Your task to perform on an android device: toggle pop-ups in chrome Image 0: 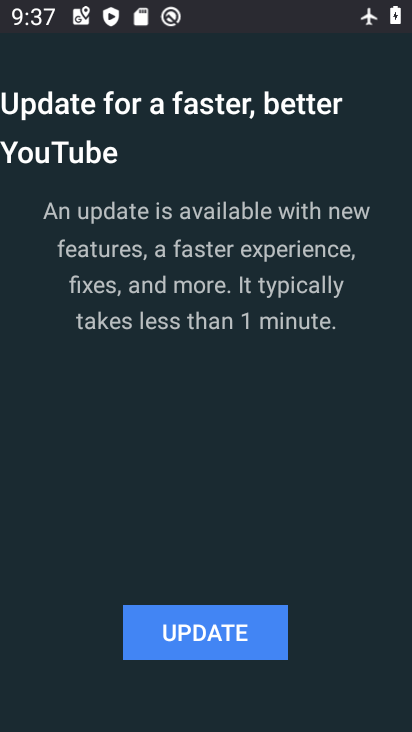
Step 0: press home button
Your task to perform on an android device: toggle pop-ups in chrome Image 1: 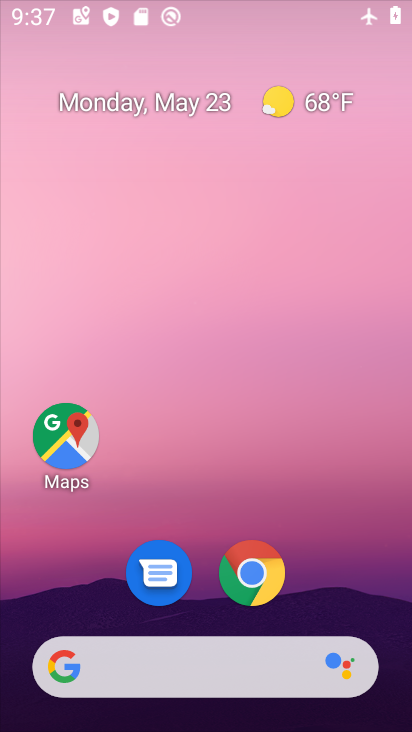
Step 1: drag from (228, 651) to (295, 115)
Your task to perform on an android device: toggle pop-ups in chrome Image 2: 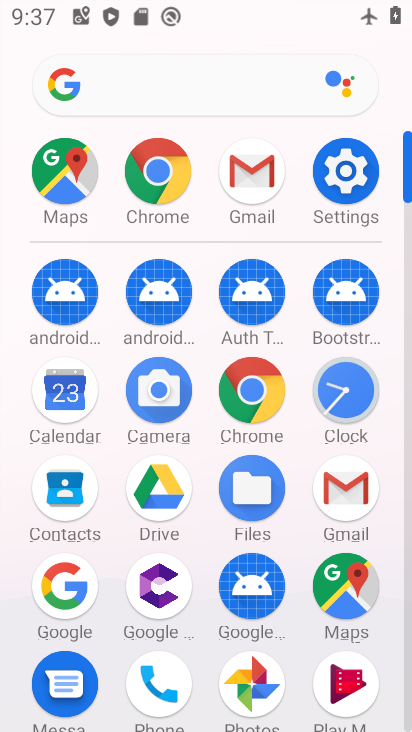
Step 2: click (264, 406)
Your task to perform on an android device: toggle pop-ups in chrome Image 3: 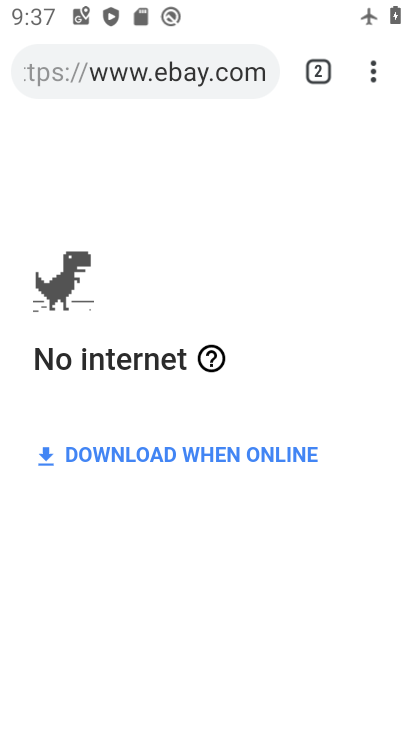
Step 3: click (381, 75)
Your task to perform on an android device: toggle pop-ups in chrome Image 4: 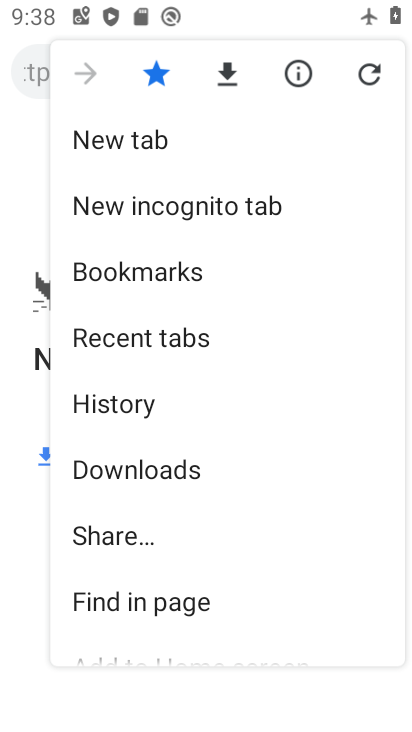
Step 4: drag from (182, 599) to (236, 218)
Your task to perform on an android device: toggle pop-ups in chrome Image 5: 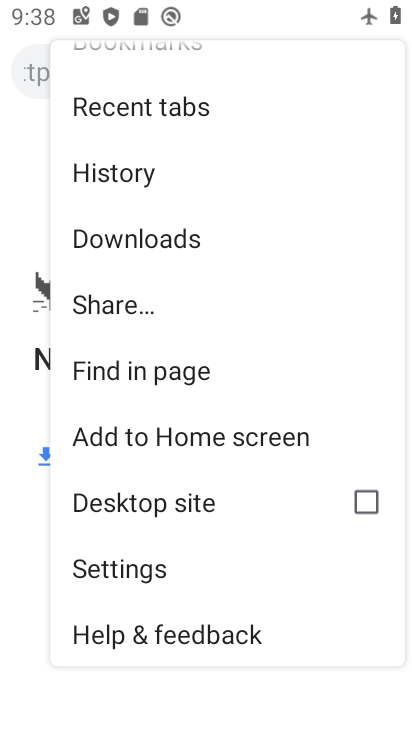
Step 5: click (185, 567)
Your task to perform on an android device: toggle pop-ups in chrome Image 6: 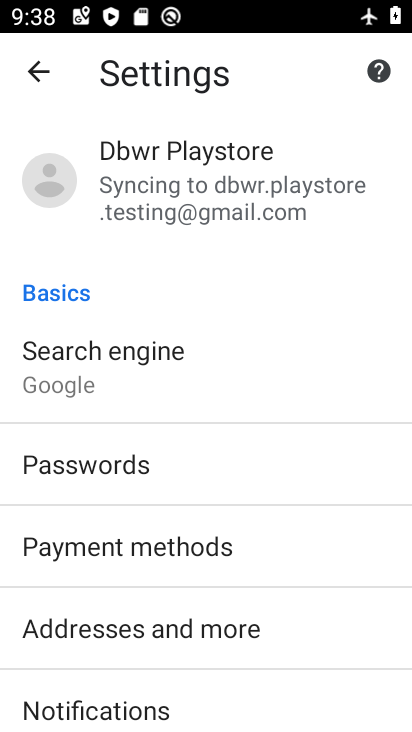
Step 6: drag from (242, 582) to (277, 259)
Your task to perform on an android device: toggle pop-ups in chrome Image 7: 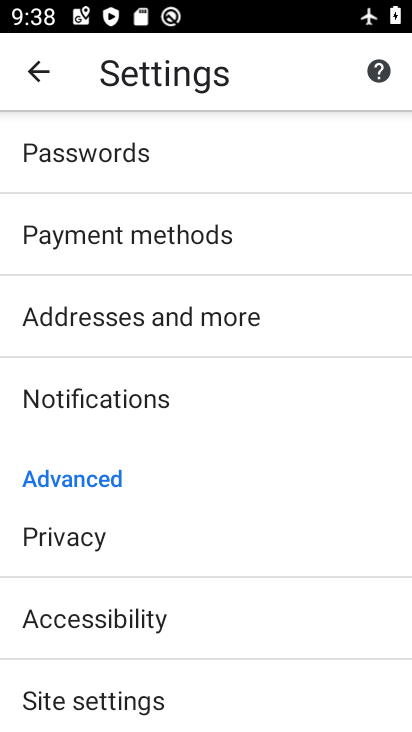
Step 7: drag from (209, 623) to (253, 378)
Your task to perform on an android device: toggle pop-ups in chrome Image 8: 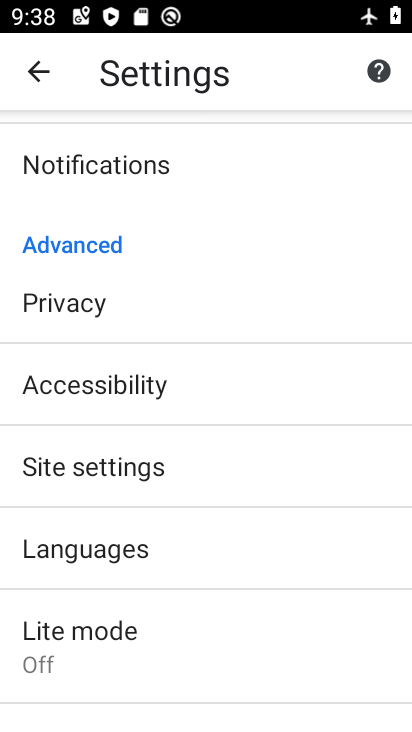
Step 8: click (165, 470)
Your task to perform on an android device: toggle pop-ups in chrome Image 9: 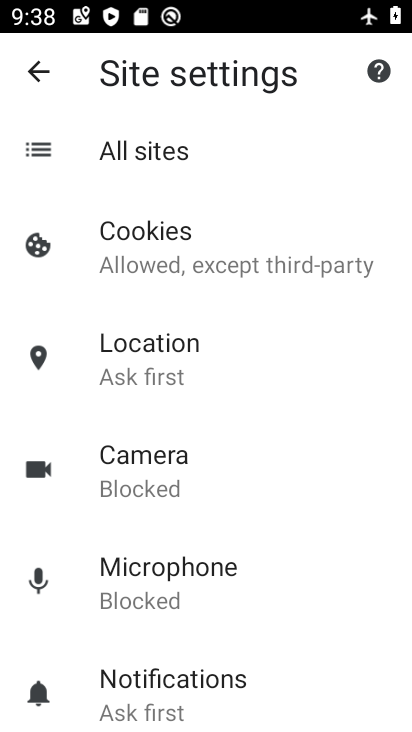
Step 9: drag from (191, 610) to (277, 182)
Your task to perform on an android device: toggle pop-ups in chrome Image 10: 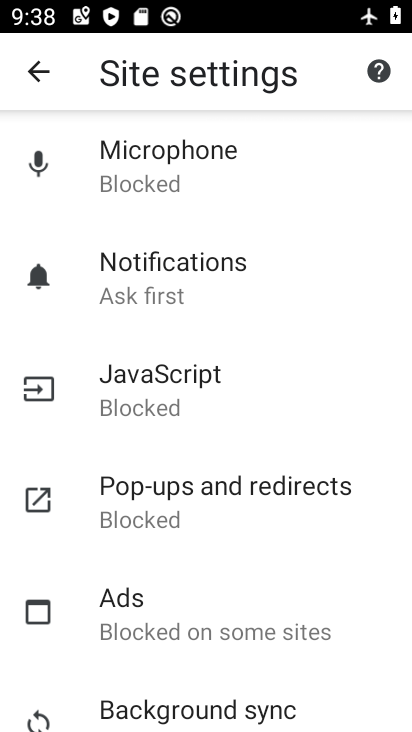
Step 10: click (262, 509)
Your task to perform on an android device: toggle pop-ups in chrome Image 11: 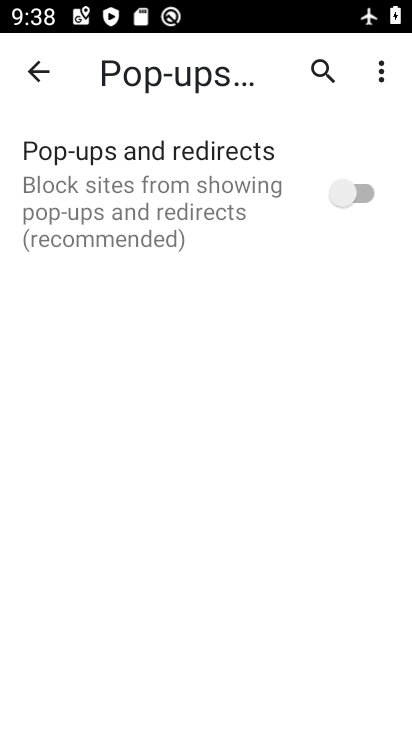
Step 11: click (370, 203)
Your task to perform on an android device: toggle pop-ups in chrome Image 12: 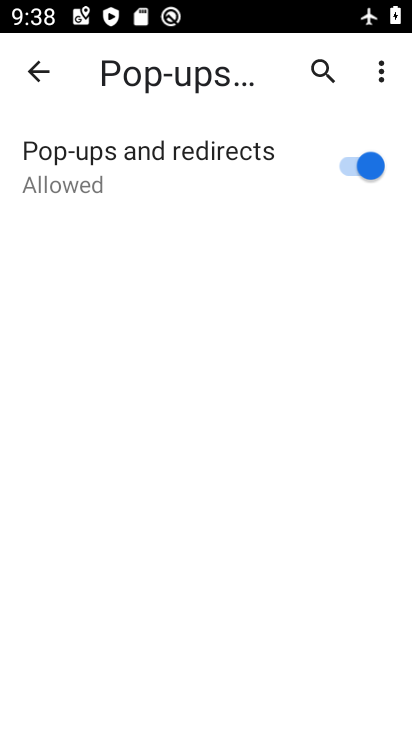
Step 12: task complete